Your task to perform on an android device: Open the map Image 0: 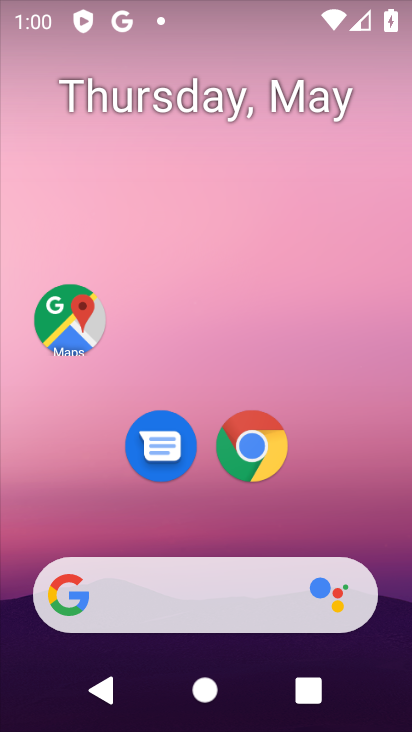
Step 0: click (69, 328)
Your task to perform on an android device: Open the map Image 1: 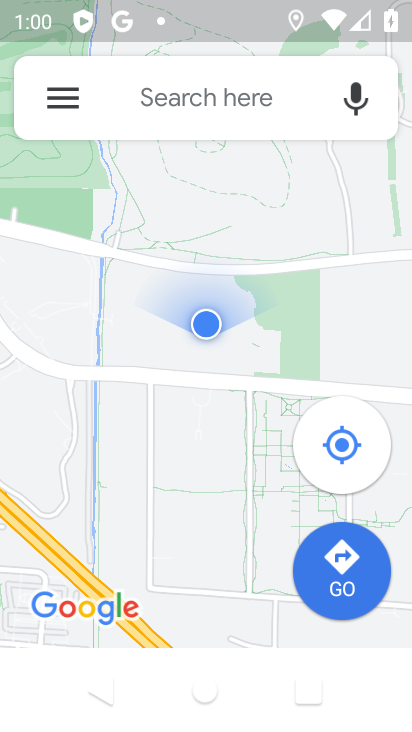
Step 1: task complete